Your task to perform on an android device: Show me popular games on the Play Store Image 0: 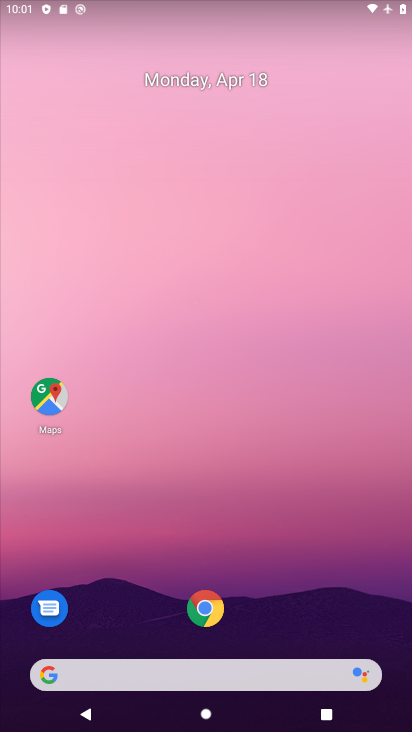
Step 0: drag from (285, 603) to (290, 220)
Your task to perform on an android device: Show me popular games on the Play Store Image 1: 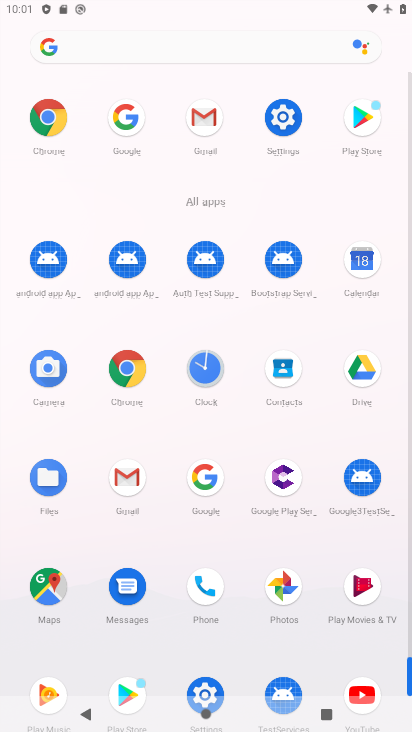
Step 1: drag from (250, 640) to (291, 355)
Your task to perform on an android device: Show me popular games on the Play Store Image 2: 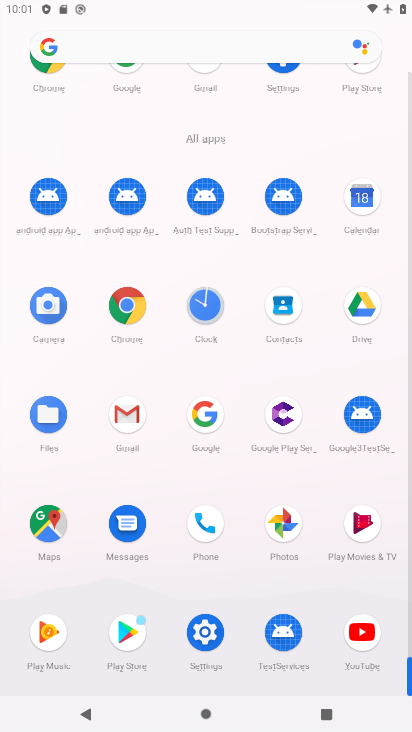
Step 2: click (124, 638)
Your task to perform on an android device: Show me popular games on the Play Store Image 3: 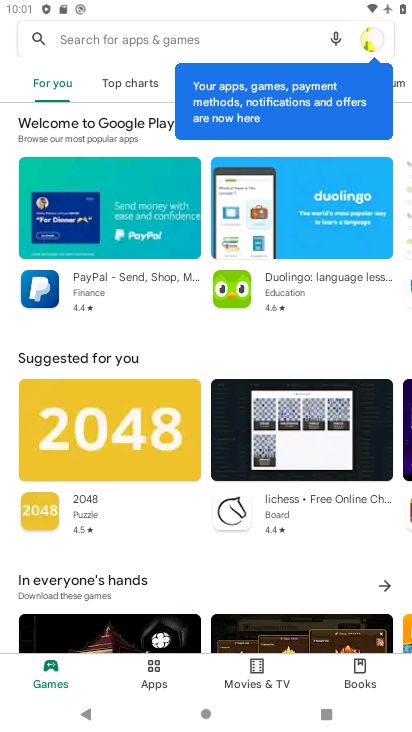
Step 3: task complete